Your task to perform on an android device: toggle sleep mode Image 0: 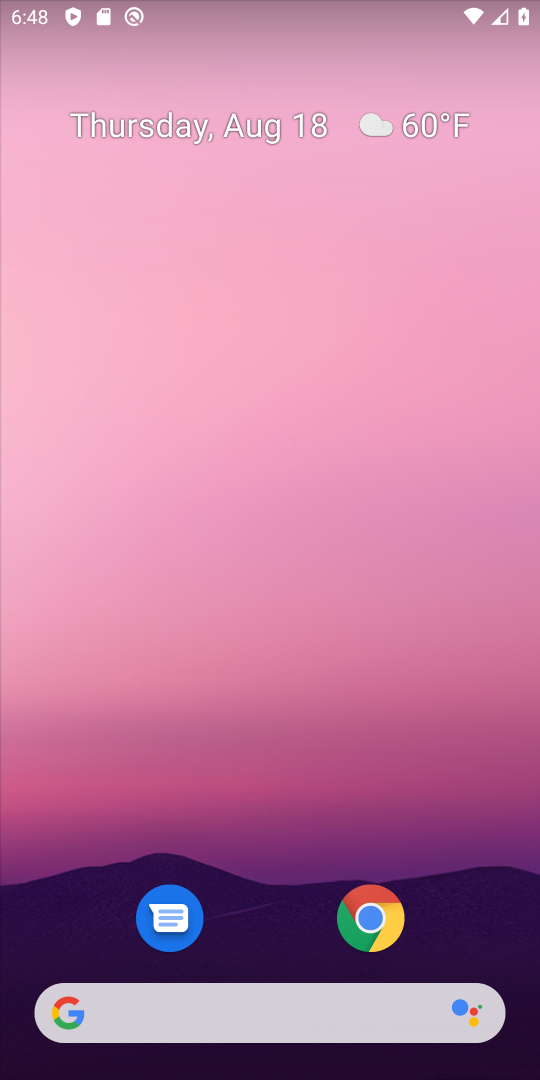
Step 0: press home button
Your task to perform on an android device: toggle sleep mode Image 1: 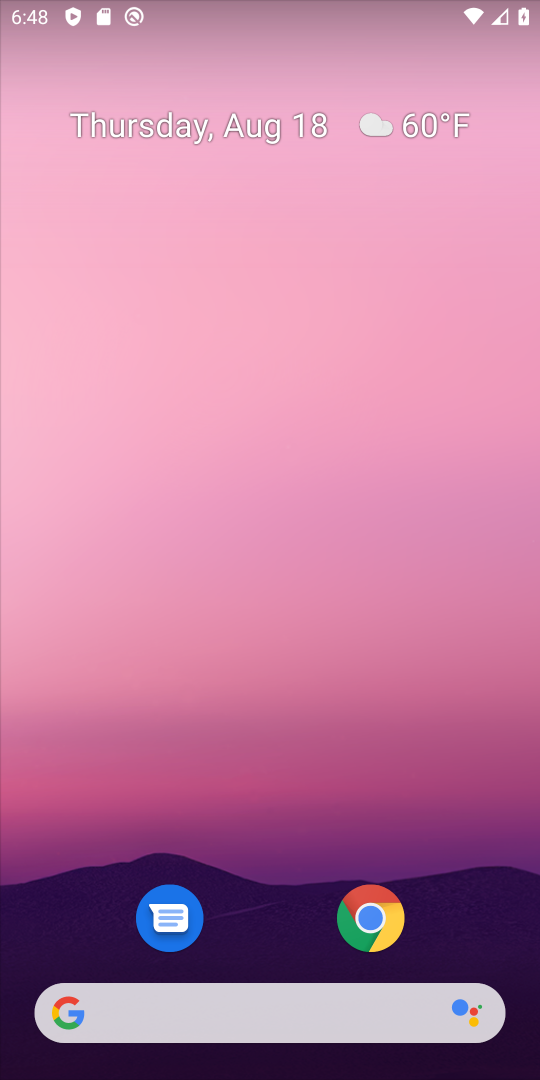
Step 1: drag from (271, 953) to (297, 72)
Your task to perform on an android device: toggle sleep mode Image 2: 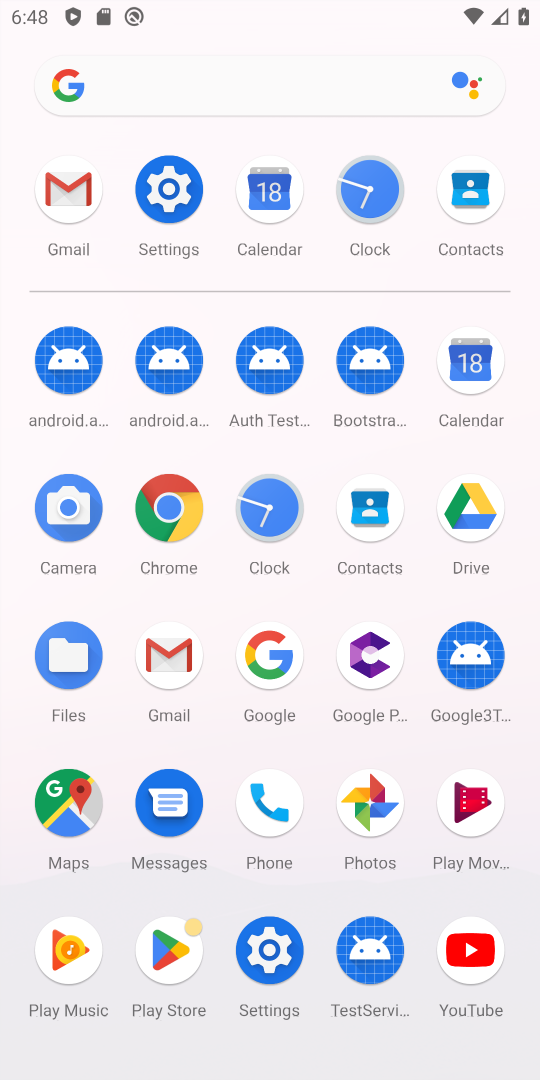
Step 2: click (176, 194)
Your task to perform on an android device: toggle sleep mode Image 3: 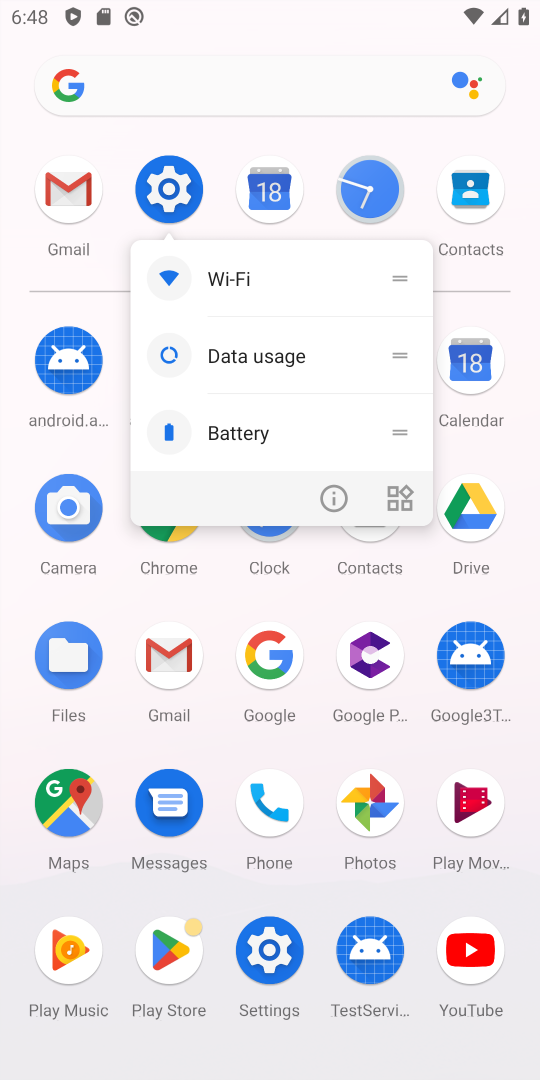
Step 3: click (175, 186)
Your task to perform on an android device: toggle sleep mode Image 4: 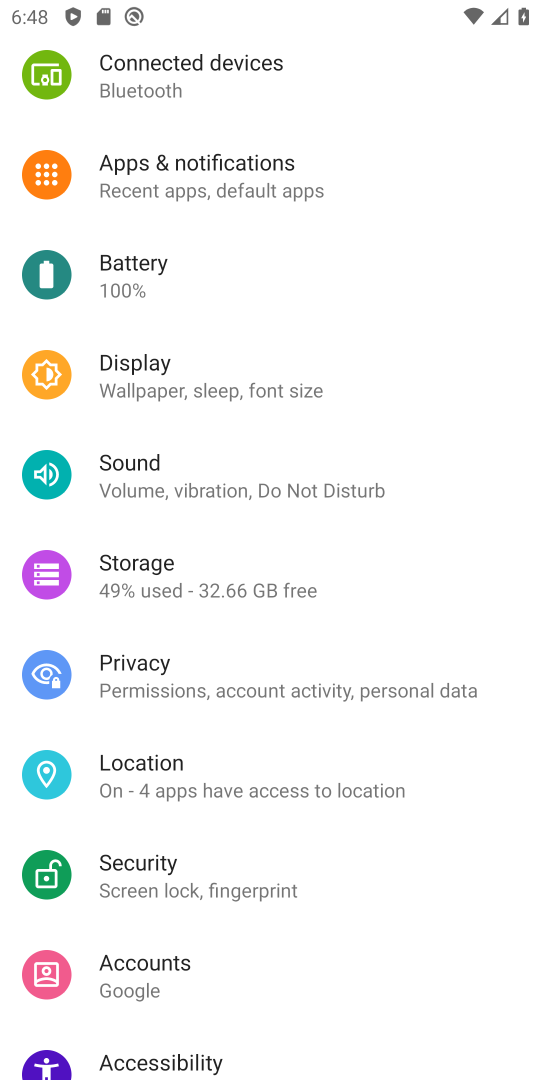
Step 4: click (144, 397)
Your task to perform on an android device: toggle sleep mode Image 5: 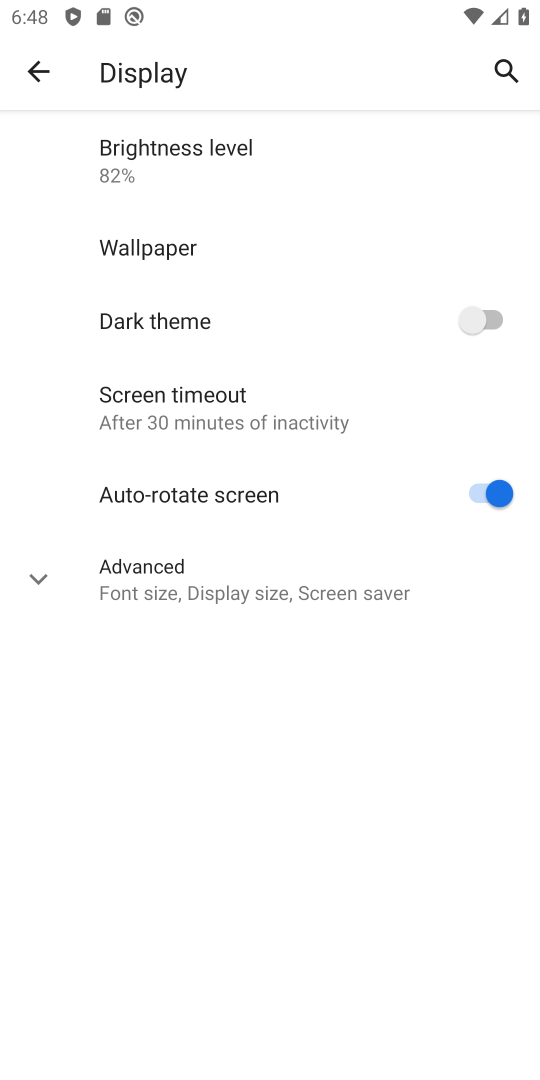
Step 5: task complete